Your task to perform on an android device: change the upload size in google photos Image 0: 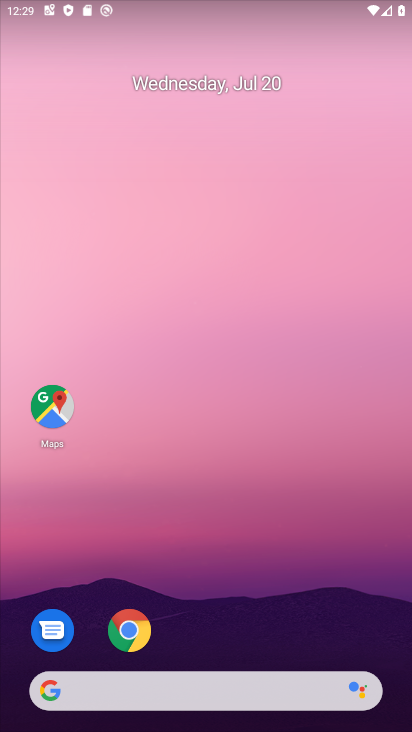
Step 0: press home button
Your task to perform on an android device: change the upload size in google photos Image 1: 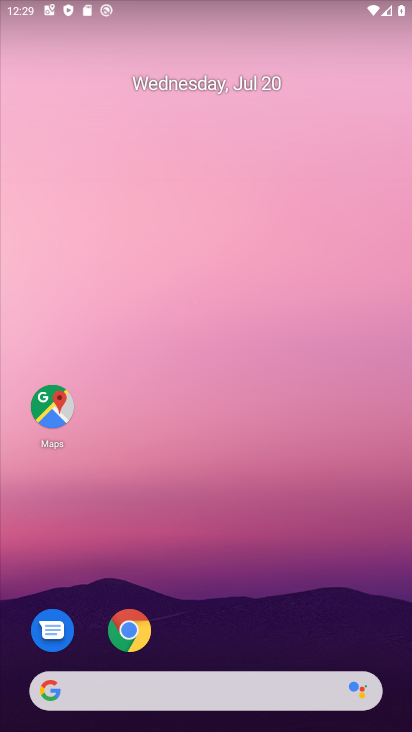
Step 1: drag from (219, 377) to (203, 87)
Your task to perform on an android device: change the upload size in google photos Image 2: 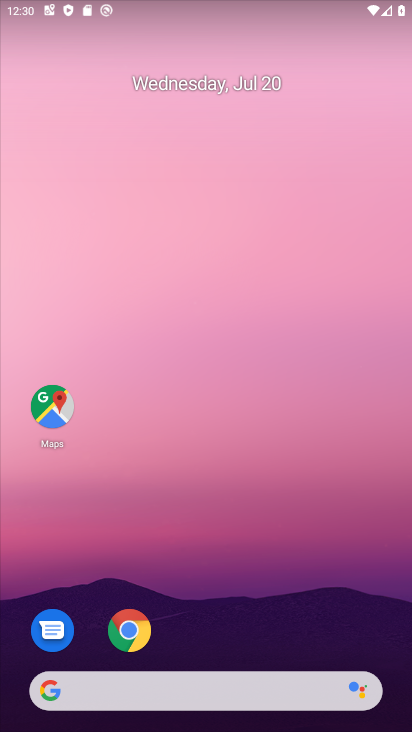
Step 2: drag from (245, 344) to (344, 16)
Your task to perform on an android device: change the upload size in google photos Image 3: 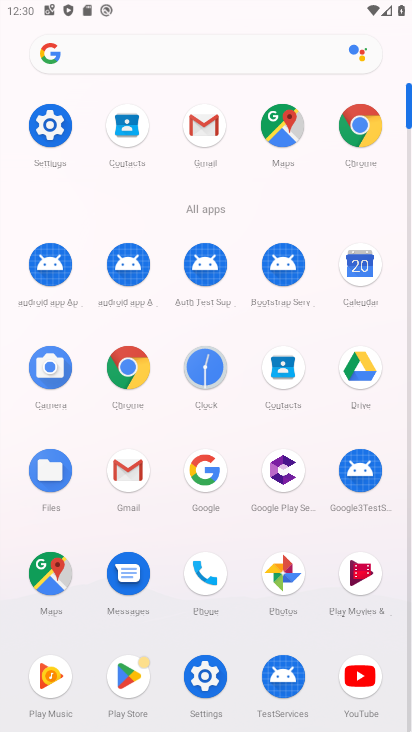
Step 3: click (278, 571)
Your task to perform on an android device: change the upload size in google photos Image 4: 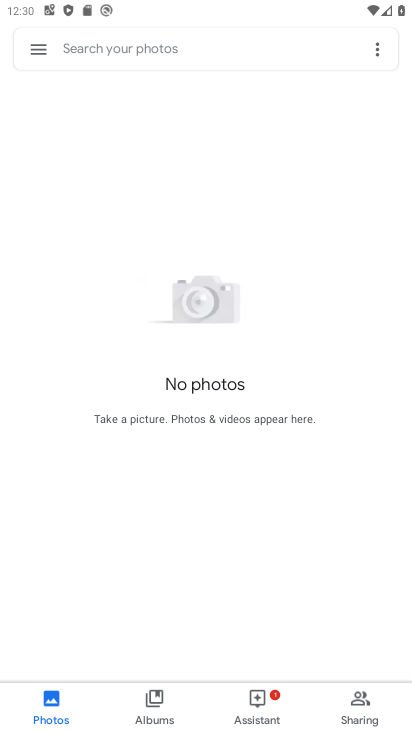
Step 4: click (376, 49)
Your task to perform on an android device: change the upload size in google photos Image 5: 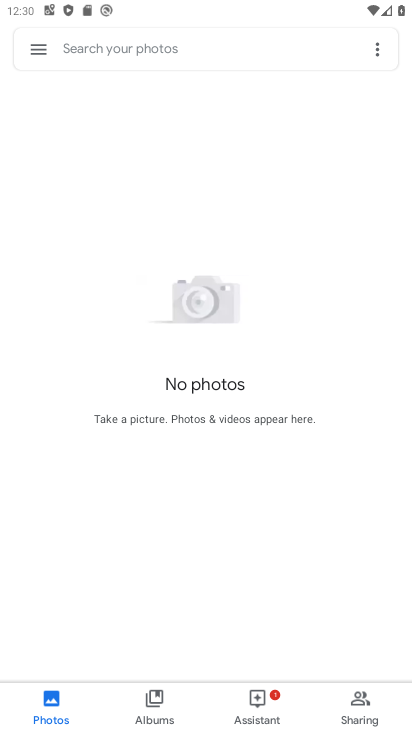
Step 5: click (377, 44)
Your task to perform on an android device: change the upload size in google photos Image 6: 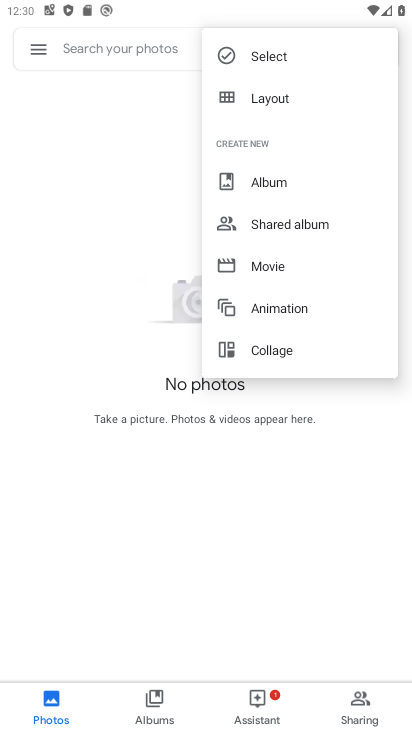
Step 6: click (46, 44)
Your task to perform on an android device: change the upload size in google photos Image 7: 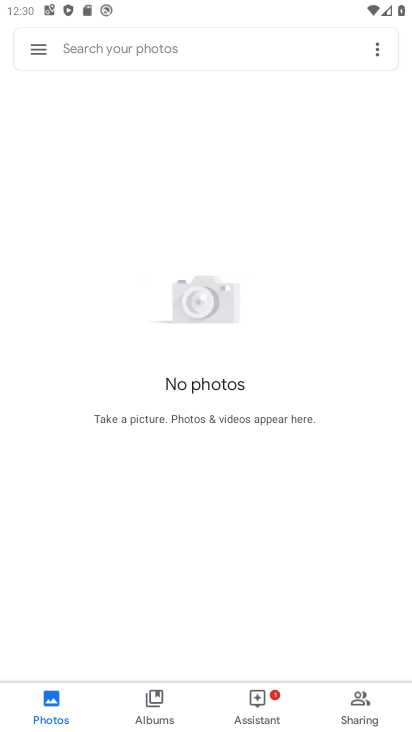
Step 7: click (39, 44)
Your task to perform on an android device: change the upload size in google photos Image 8: 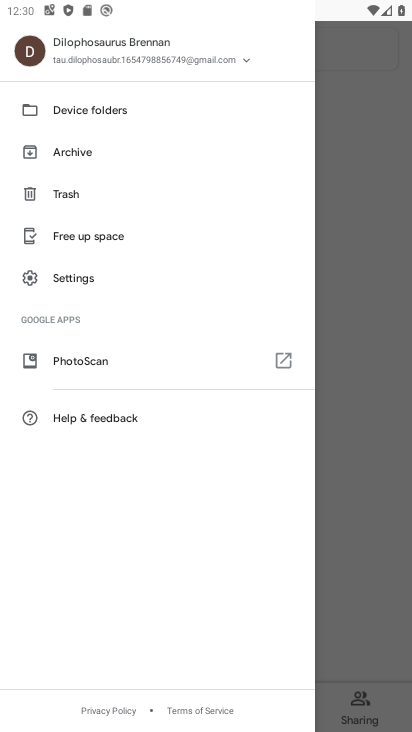
Step 8: click (64, 282)
Your task to perform on an android device: change the upload size in google photos Image 9: 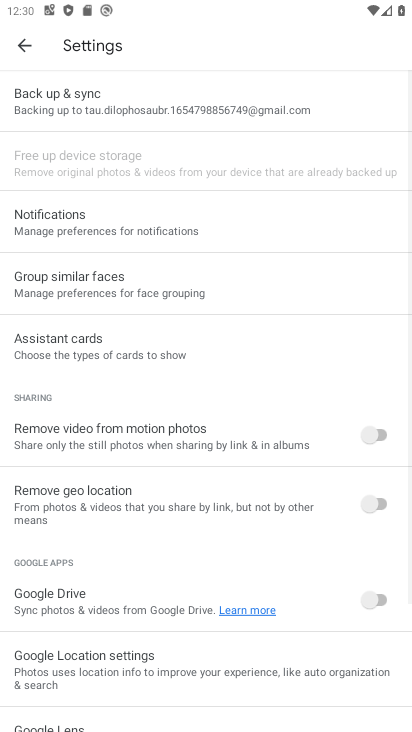
Step 9: click (118, 101)
Your task to perform on an android device: change the upload size in google photos Image 10: 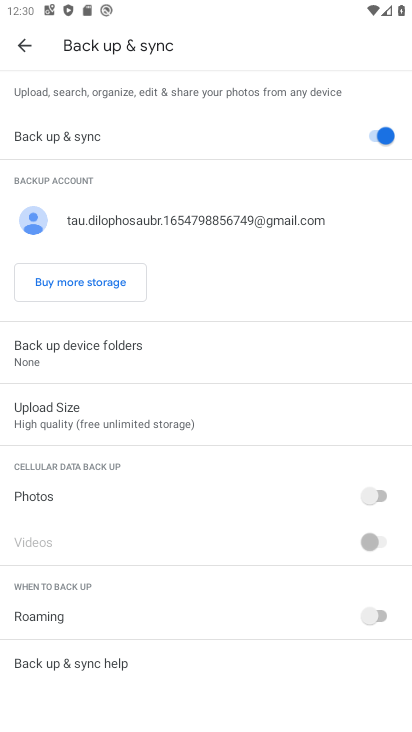
Step 10: click (91, 408)
Your task to perform on an android device: change the upload size in google photos Image 11: 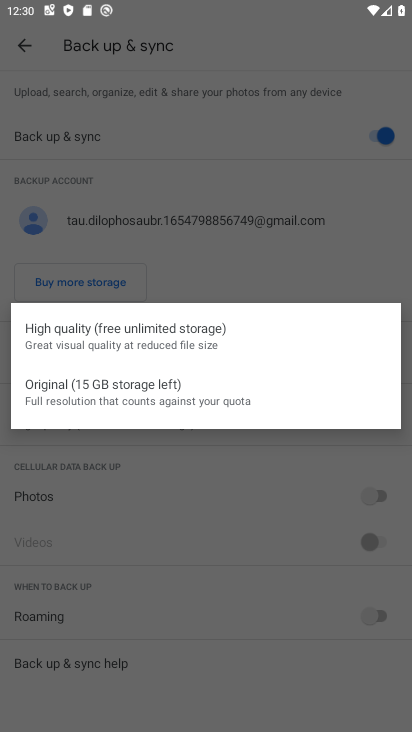
Step 11: click (125, 325)
Your task to perform on an android device: change the upload size in google photos Image 12: 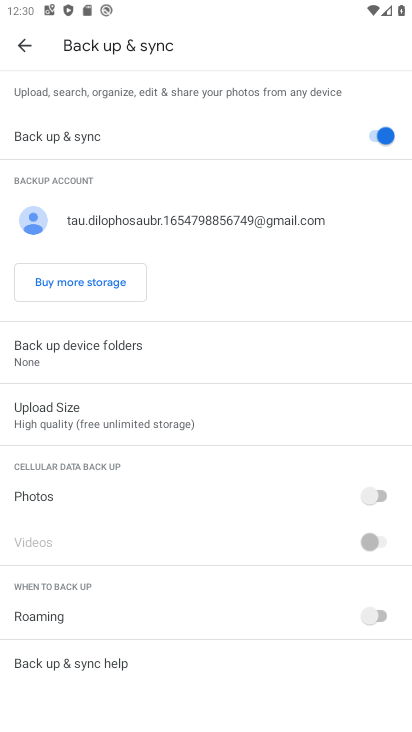
Step 12: task complete